Your task to perform on an android device: allow notifications from all sites in the chrome app Image 0: 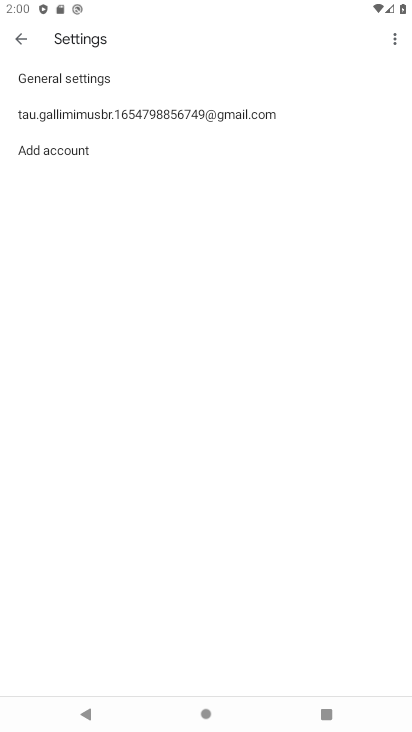
Step 0: press home button
Your task to perform on an android device: allow notifications from all sites in the chrome app Image 1: 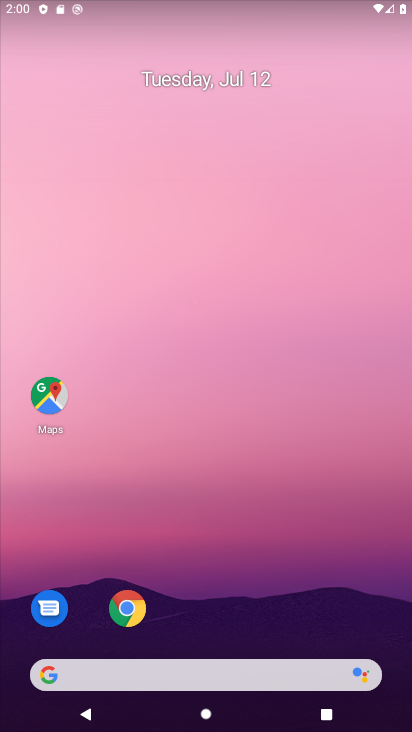
Step 1: drag from (231, 621) to (206, 99)
Your task to perform on an android device: allow notifications from all sites in the chrome app Image 2: 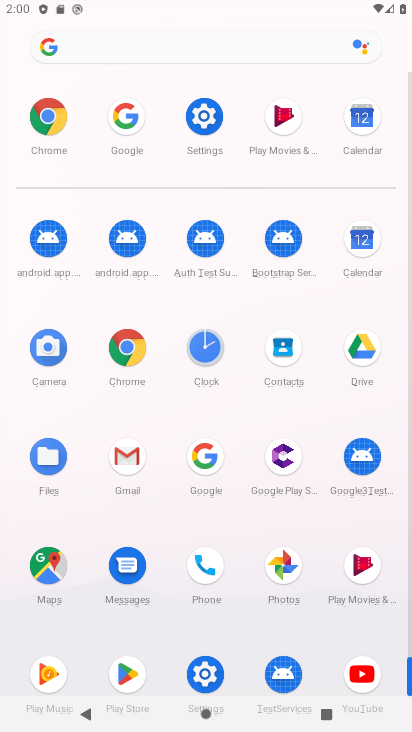
Step 2: click (129, 343)
Your task to perform on an android device: allow notifications from all sites in the chrome app Image 3: 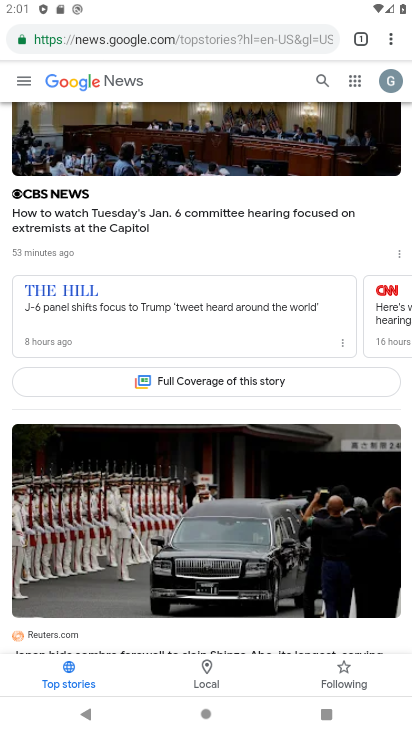
Step 3: drag from (301, 295) to (389, 45)
Your task to perform on an android device: allow notifications from all sites in the chrome app Image 4: 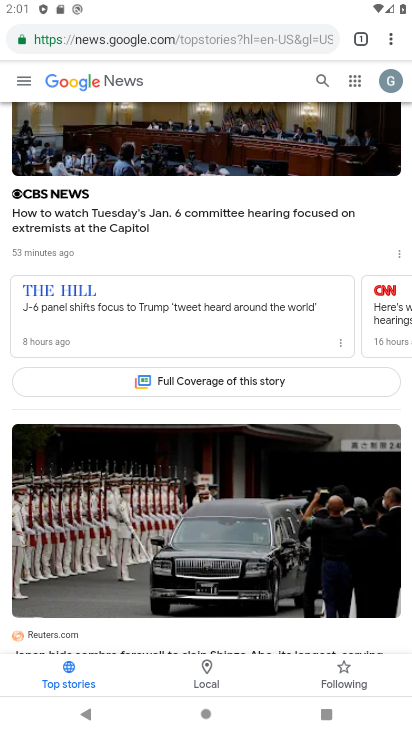
Step 4: click (390, 36)
Your task to perform on an android device: allow notifications from all sites in the chrome app Image 5: 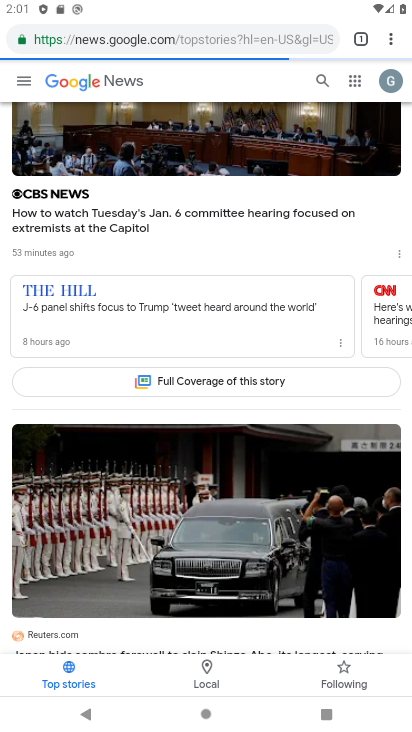
Step 5: drag from (390, 36) to (259, 521)
Your task to perform on an android device: allow notifications from all sites in the chrome app Image 6: 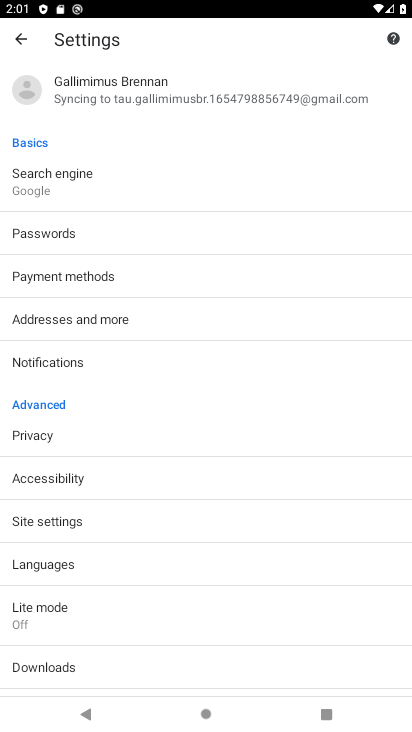
Step 6: click (48, 365)
Your task to perform on an android device: allow notifications from all sites in the chrome app Image 7: 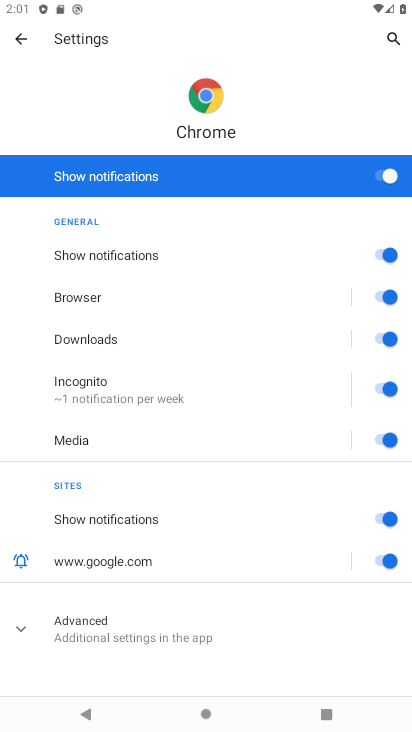
Step 7: task complete